Your task to perform on an android device: check storage Image 0: 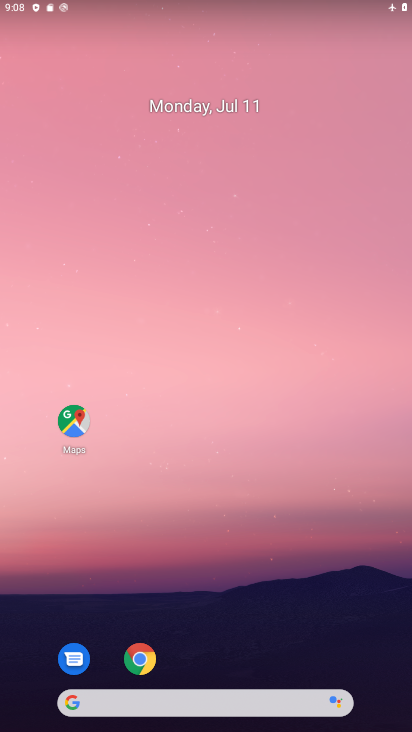
Step 0: drag from (187, 667) to (164, 286)
Your task to perform on an android device: check storage Image 1: 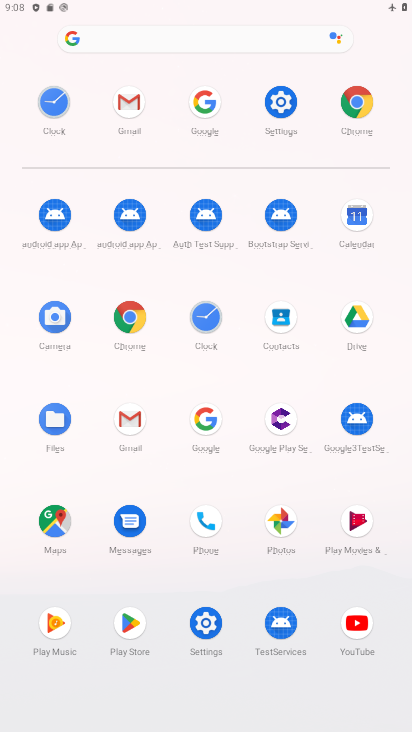
Step 1: click (278, 107)
Your task to perform on an android device: check storage Image 2: 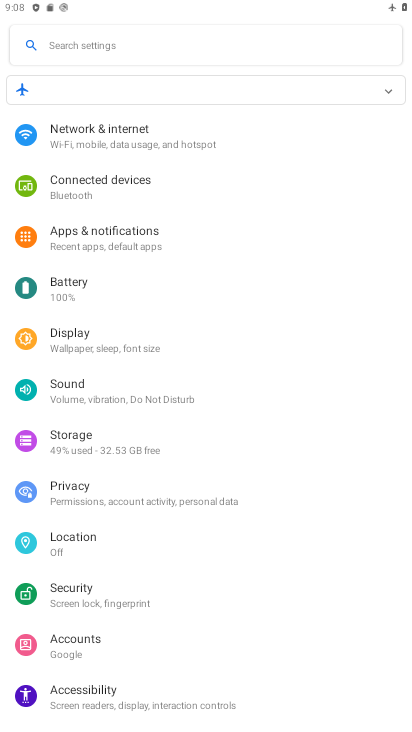
Step 2: click (110, 454)
Your task to perform on an android device: check storage Image 3: 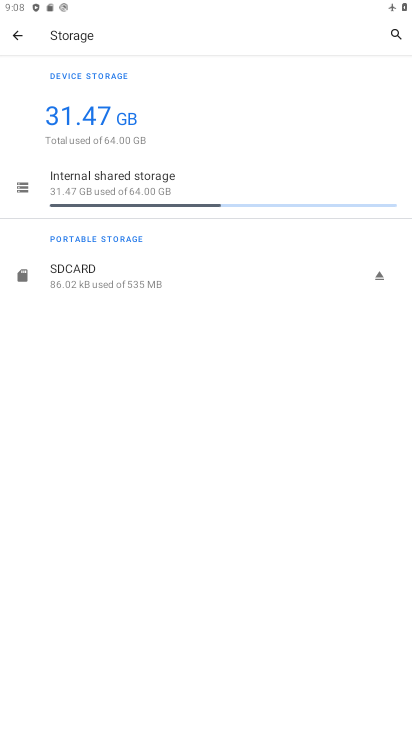
Step 3: click (182, 200)
Your task to perform on an android device: check storage Image 4: 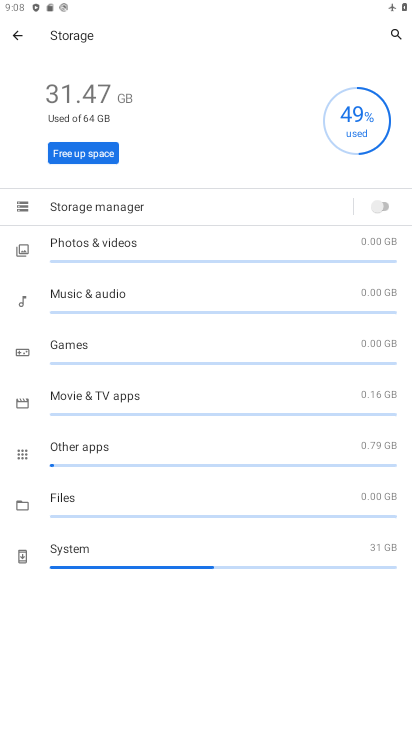
Step 4: task complete